Your task to perform on an android device: toggle pop-ups in chrome Image 0: 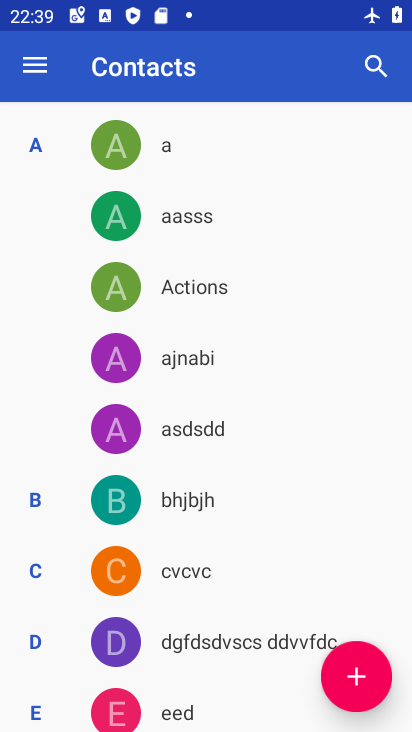
Step 0: press home button
Your task to perform on an android device: toggle pop-ups in chrome Image 1: 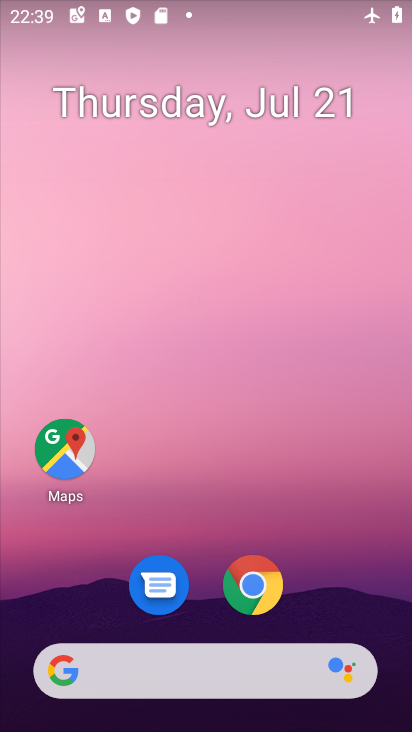
Step 1: click (251, 583)
Your task to perform on an android device: toggle pop-ups in chrome Image 2: 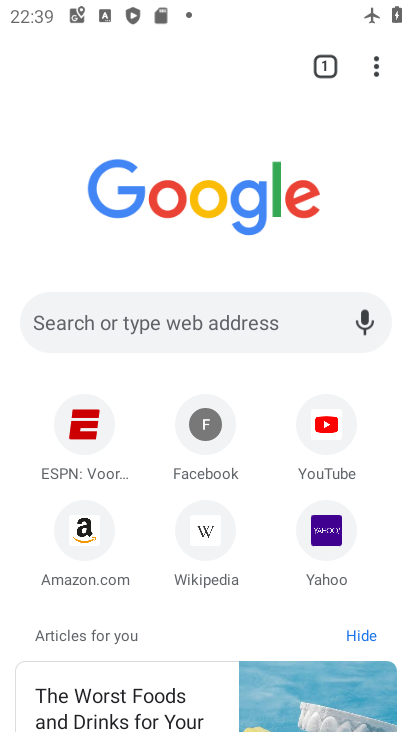
Step 2: click (378, 69)
Your task to perform on an android device: toggle pop-ups in chrome Image 3: 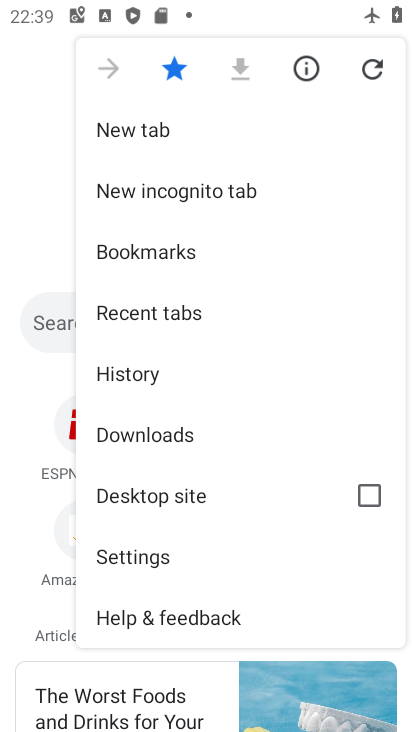
Step 3: click (159, 554)
Your task to perform on an android device: toggle pop-ups in chrome Image 4: 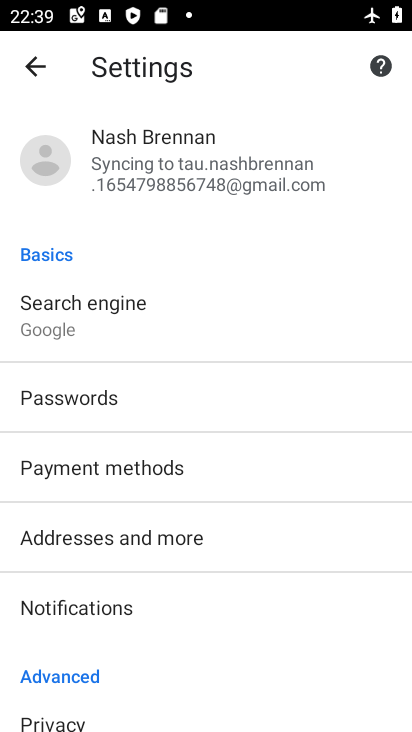
Step 4: drag from (258, 653) to (259, 316)
Your task to perform on an android device: toggle pop-ups in chrome Image 5: 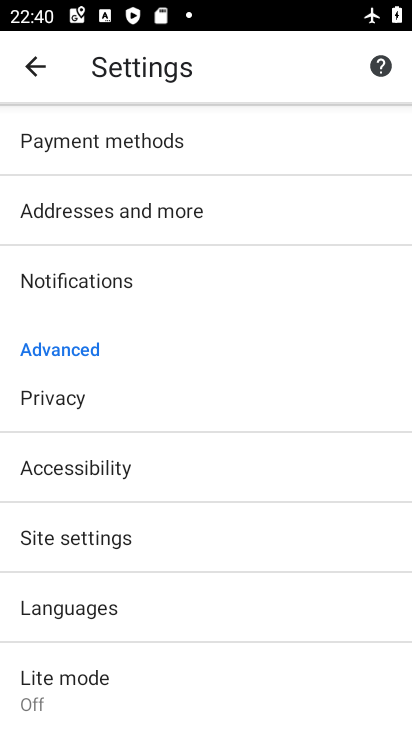
Step 5: click (121, 525)
Your task to perform on an android device: toggle pop-ups in chrome Image 6: 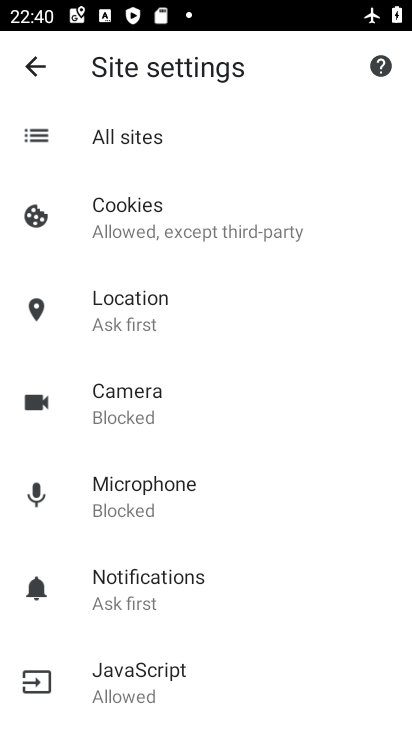
Step 6: drag from (246, 576) to (251, 368)
Your task to perform on an android device: toggle pop-ups in chrome Image 7: 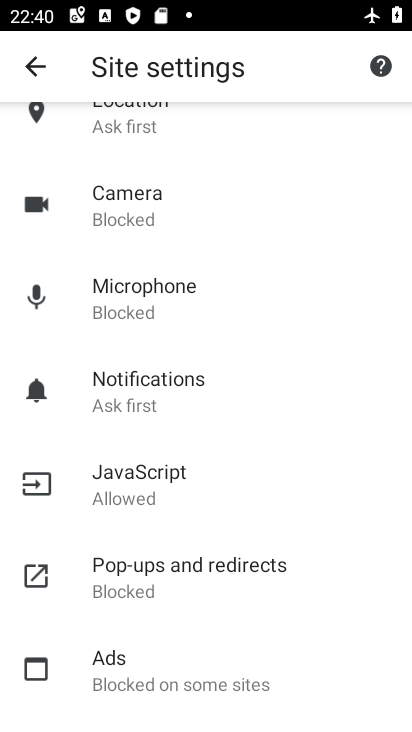
Step 7: click (223, 575)
Your task to perform on an android device: toggle pop-ups in chrome Image 8: 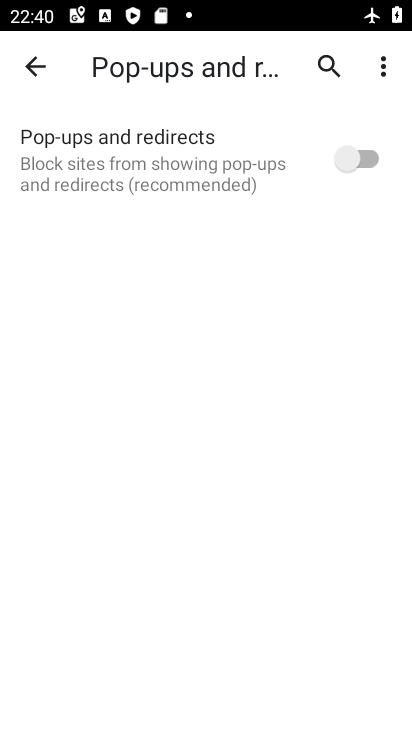
Step 8: click (360, 157)
Your task to perform on an android device: toggle pop-ups in chrome Image 9: 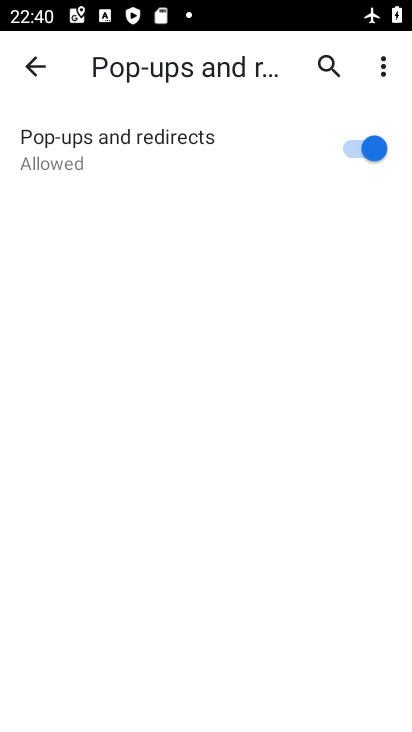
Step 9: task complete